Your task to perform on an android device: set an alarm Image 0: 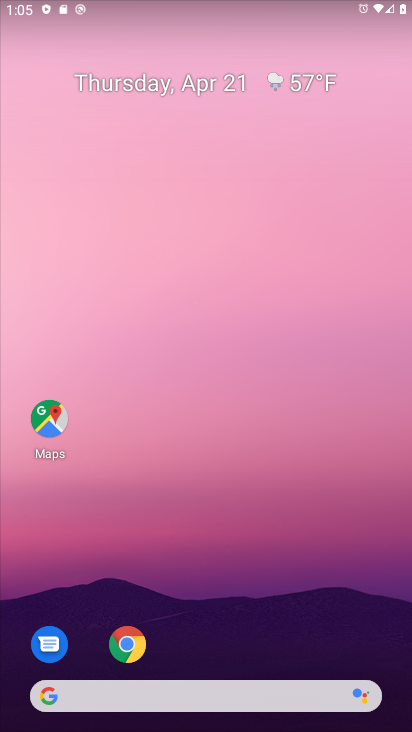
Step 0: drag from (204, 672) to (387, 474)
Your task to perform on an android device: set an alarm Image 1: 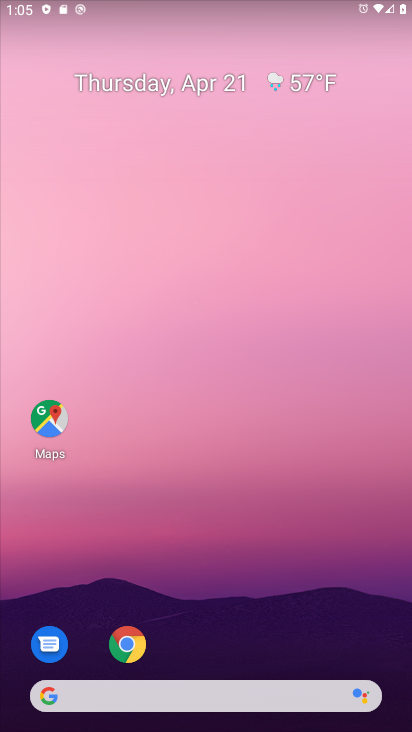
Step 1: drag from (221, 665) to (123, 85)
Your task to perform on an android device: set an alarm Image 2: 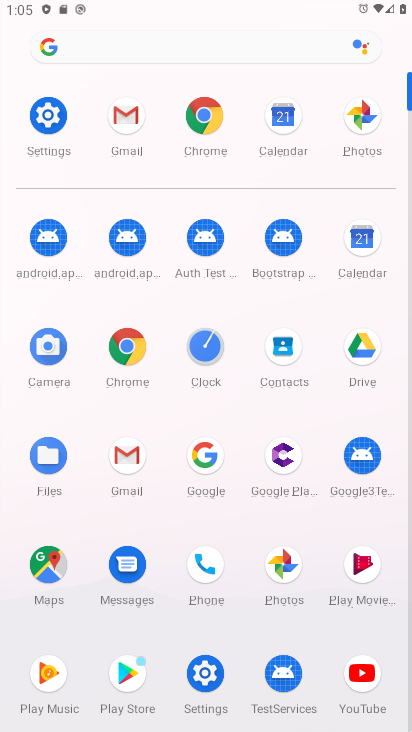
Step 2: click (210, 679)
Your task to perform on an android device: set an alarm Image 3: 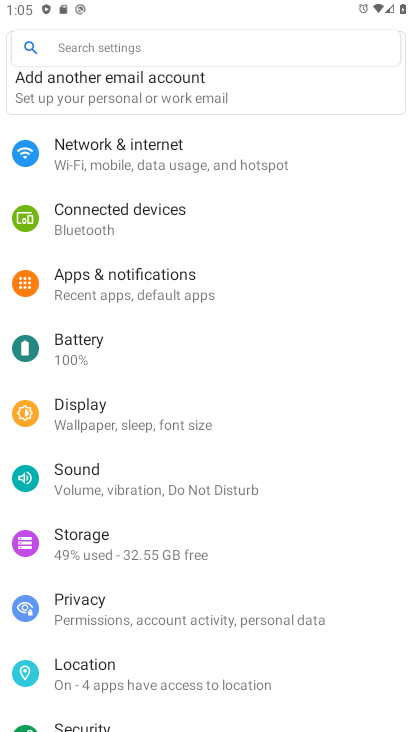
Step 3: press home button
Your task to perform on an android device: set an alarm Image 4: 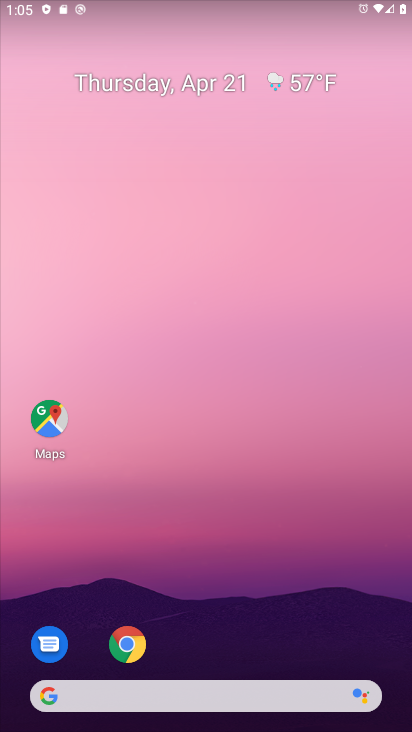
Step 4: drag from (205, 666) to (120, 4)
Your task to perform on an android device: set an alarm Image 5: 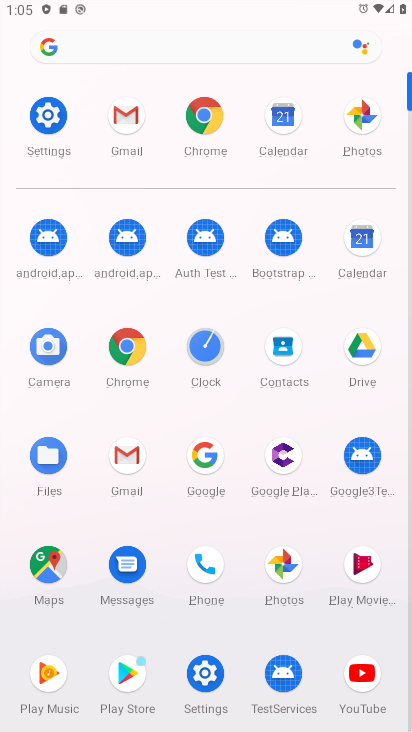
Step 5: click (206, 350)
Your task to perform on an android device: set an alarm Image 6: 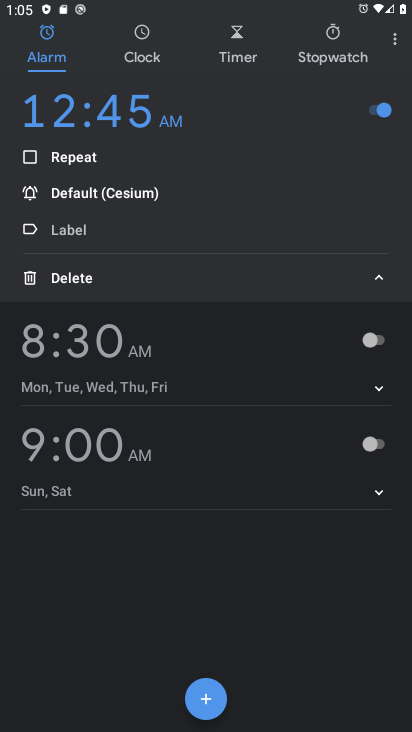
Step 6: click (204, 688)
Your task to perform on an android device: set an alarm Image 7: 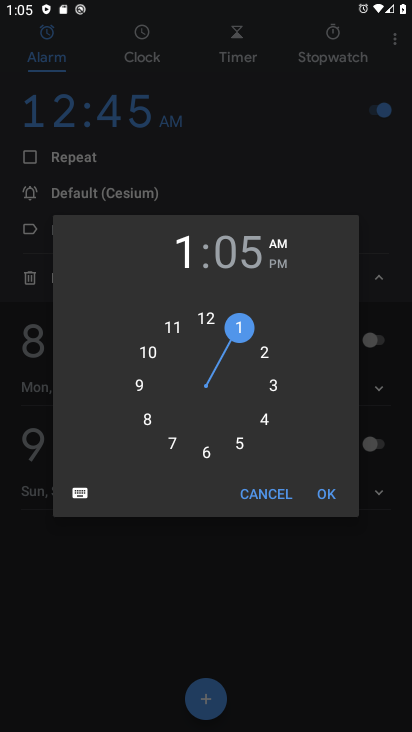
Step 7: click (328, 487)
Your task to perform on an android device: set an alarm Image 8: 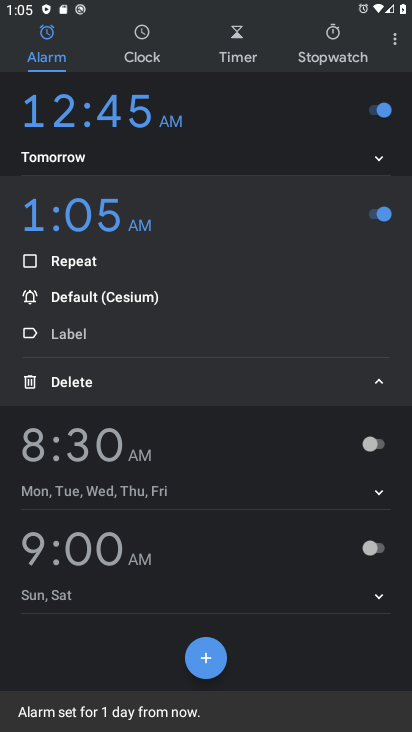
Step 8: task complete